Your task to perform on an android device: Open Reddit.com Image 0: 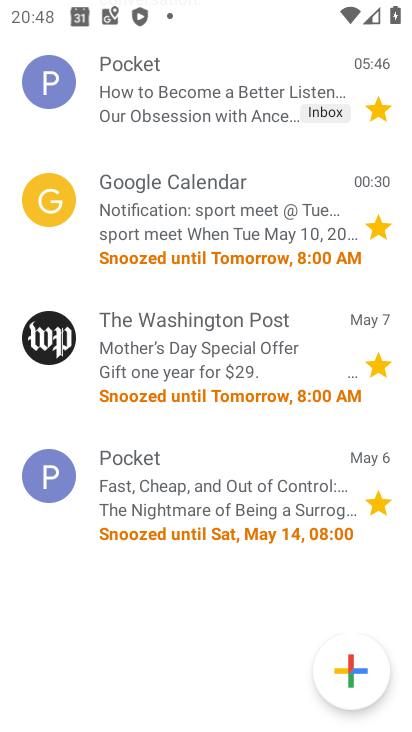
Step 0: press home button
Your task to perform on an android device: Open Reddit.com Image 1: 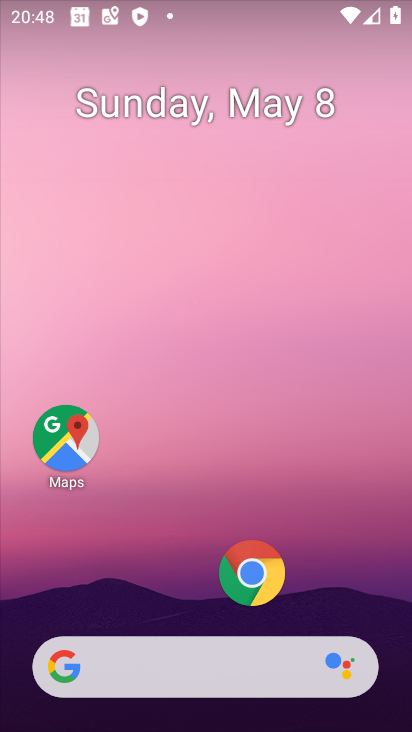
Step 1: click (248, 571)
Your task to perform on an android device: Open Reddit.com Image 2: 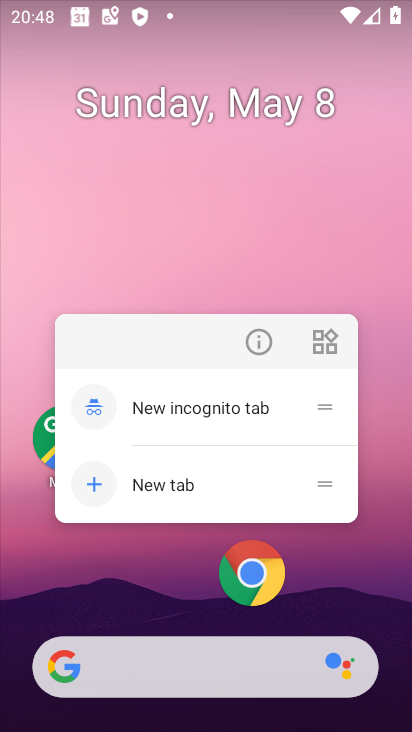
Step 2: click (253, 342)
Your task to perform on an android device: Open Reddit.com Image 3: 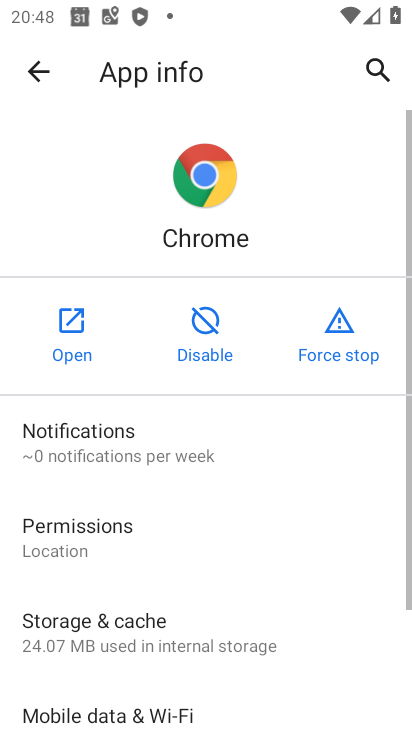
Step 3: click (72, 346)
Your task to perform on an android device: Open Reddit.com Image 4: 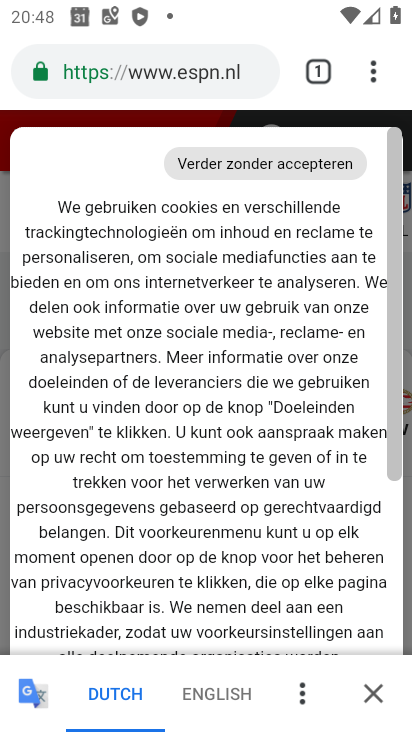
Step 4: click (139, 75)
Your task to perform on an android device: Open Reddit.com Image 5: 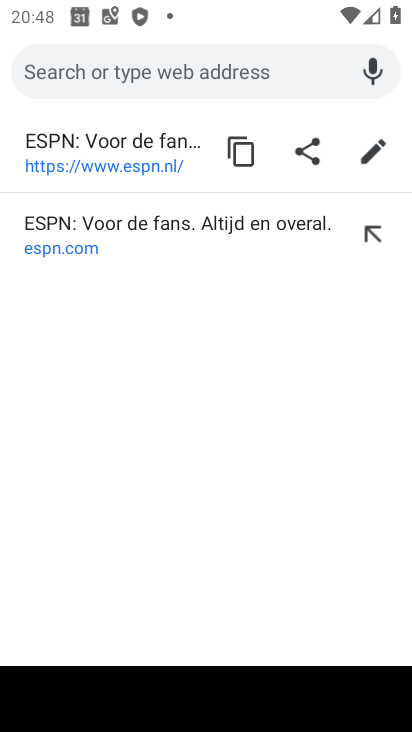
Step 5: type "Reddit.com"
Your task to perform on an android device: Open Reddit.com Image 6: 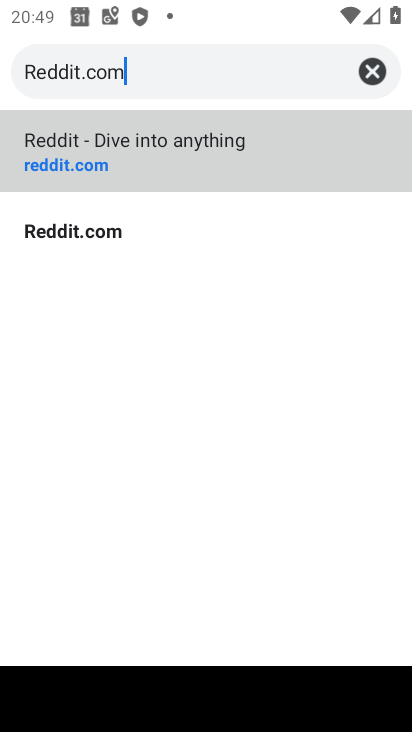
Step 6: click (87, 241)
Your task to perform on an android device: Open Reddit.com Image 7: 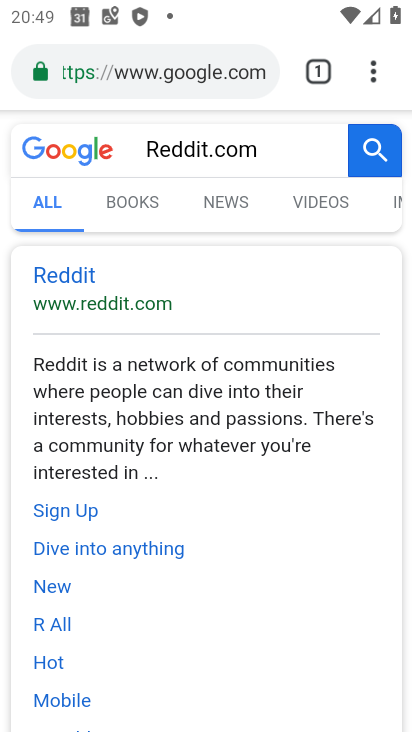
Step 7: click (286, 711)
Your task to perform on an android device: Open Reddit.com Image 8: 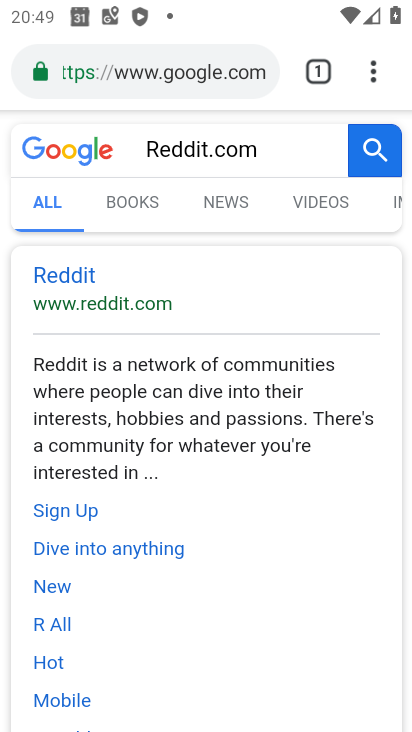
Step 8: task complete